Your task to perform on an android device: Go to battery settings Image 0: 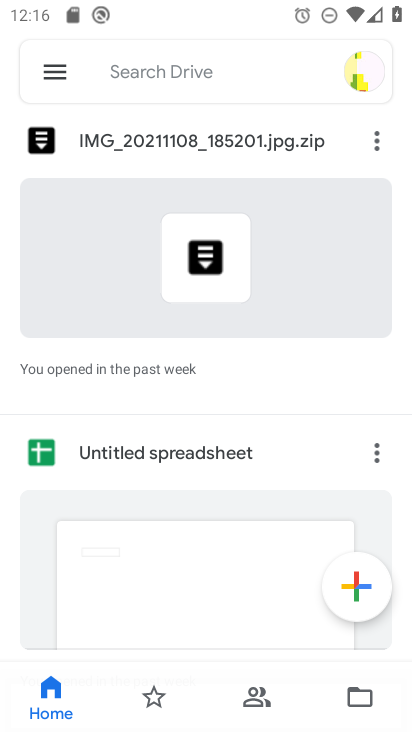
Step 0: press home button
Your task to perform on an android device: Go to battery settings Image 1: 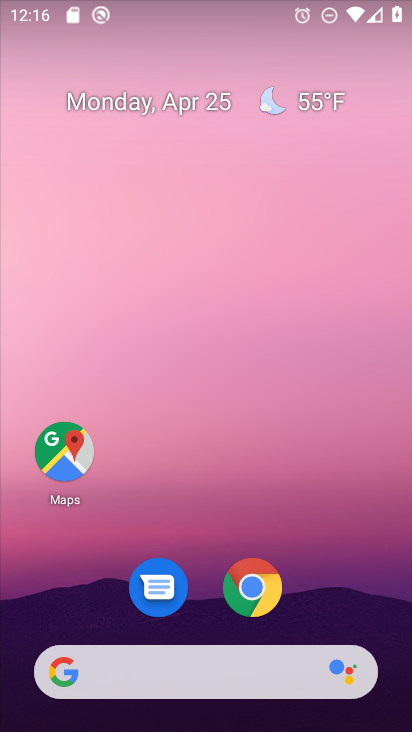
Step 1: drag from (341, 510) to (286, 158)
Your task to perform on an android device: Go to battery settings Image 2: 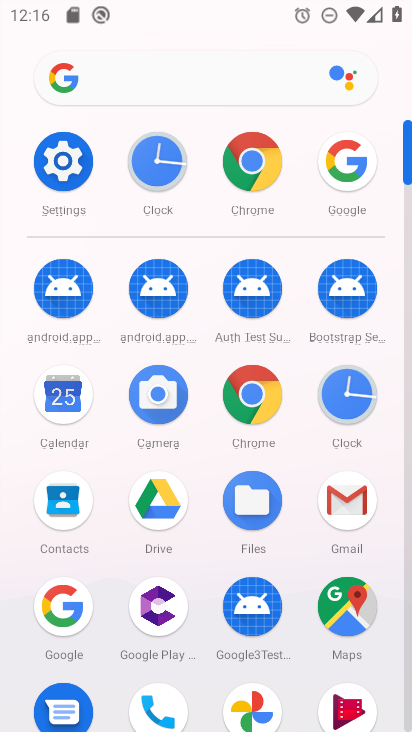
Step 2: click (64, 155)
Your task to perform on an android device: Go to battery settings Image 3: 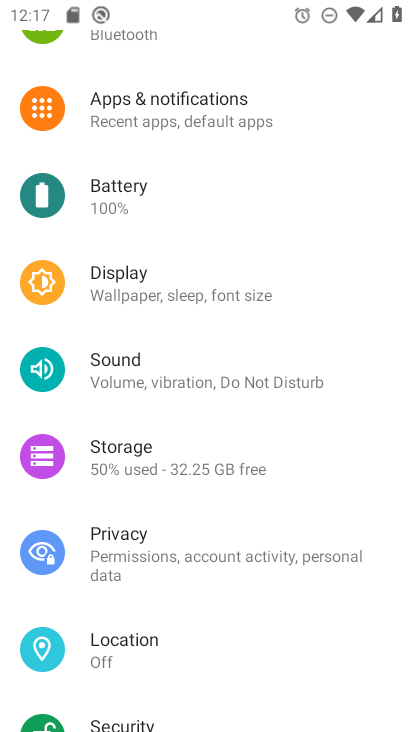
Step 3: click (162, 210)
Your task to perform on an android device: Go to battery settings Image 4: 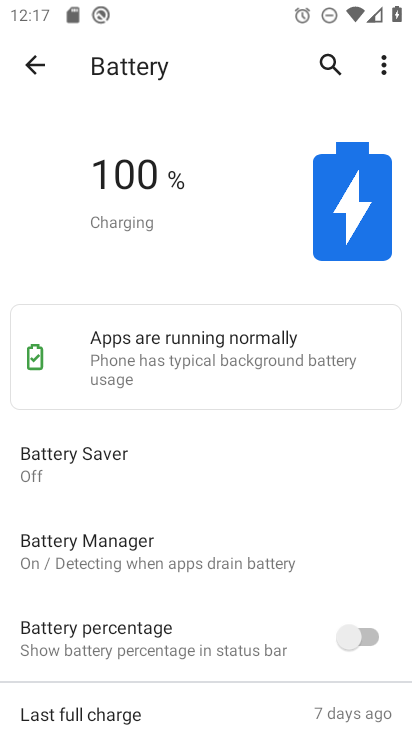
Step 4: task complete